Your task to perform on an android device: Turn off the flashlight Image 0: 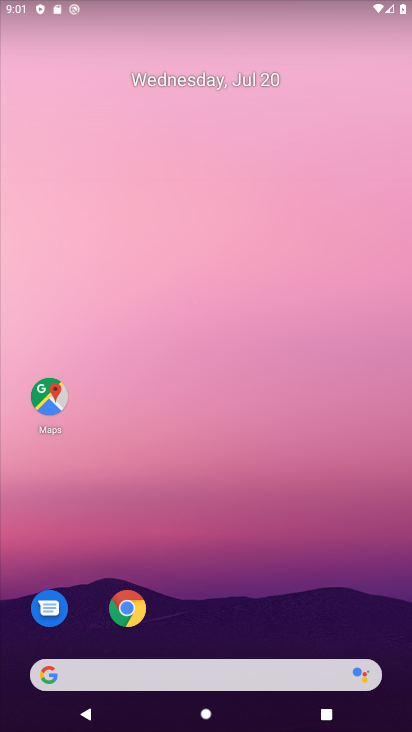
Step 0: drag from (237, 99) to (243, 532)
Your task to perform on an android device: Turn off the flashlight Image 1: 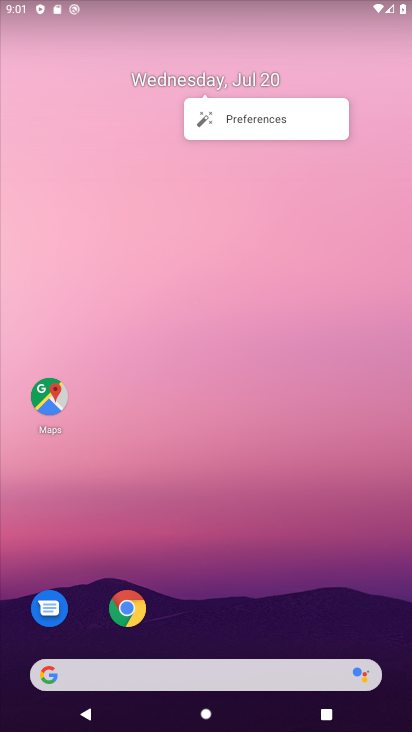
Step 1: drag from (266, 14) to (233, 473)
Your task to perform on an android device: Turn off the flashlight Image 2: 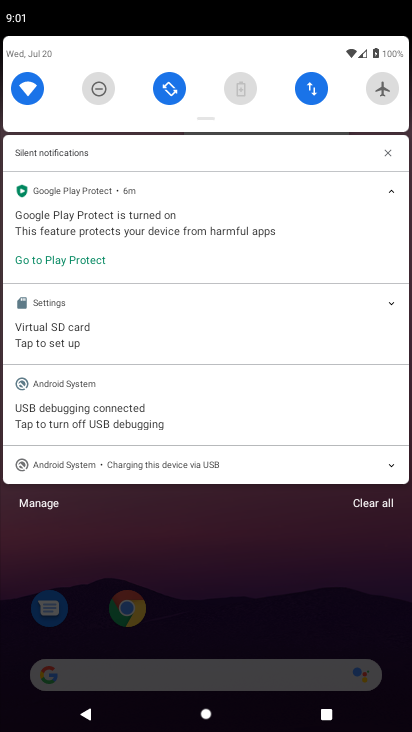
Step 2: click (233, 473)
Your task to perform on an android device: Turn off the flashlight Image 3: 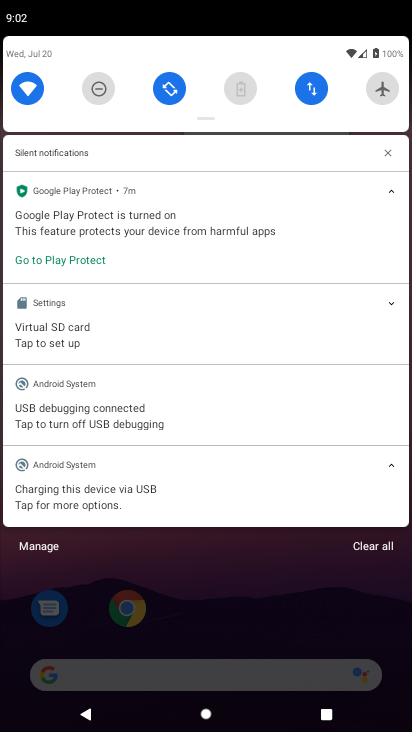
Step 3: drag from (211, 244) to (207, 302)
Your task to perform on an android device: Turn off the flashlight Image 4: 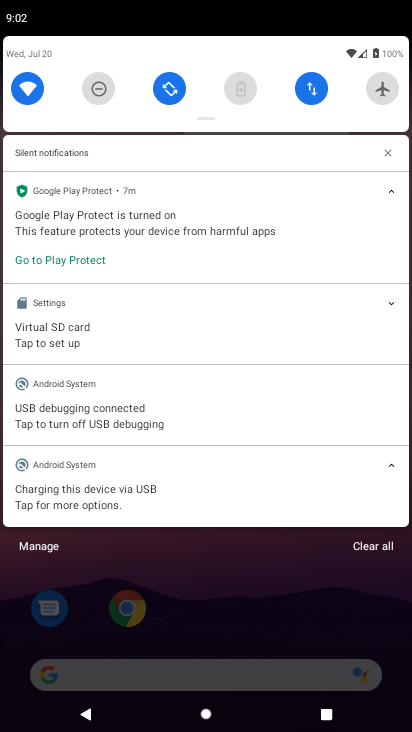
Step 4: drag from (244, 314) to (240, 433)
Your task to perform on an android device: Turn off the flashlight Image 5: 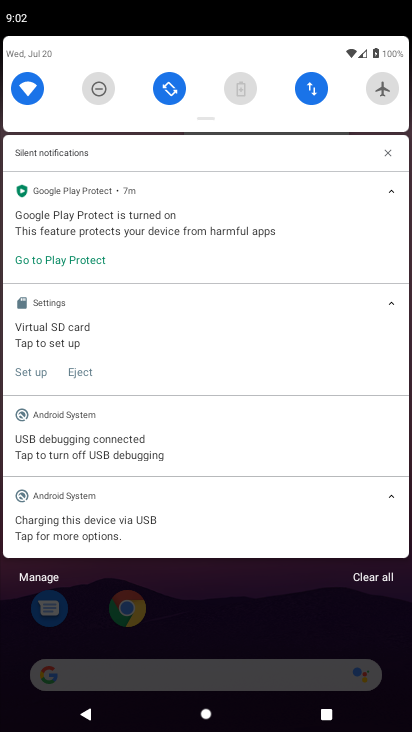
Step 5: drag from (211, 138) to (217, 465)
Your task to perform on an android device: Turn off the flashlight Image 6: 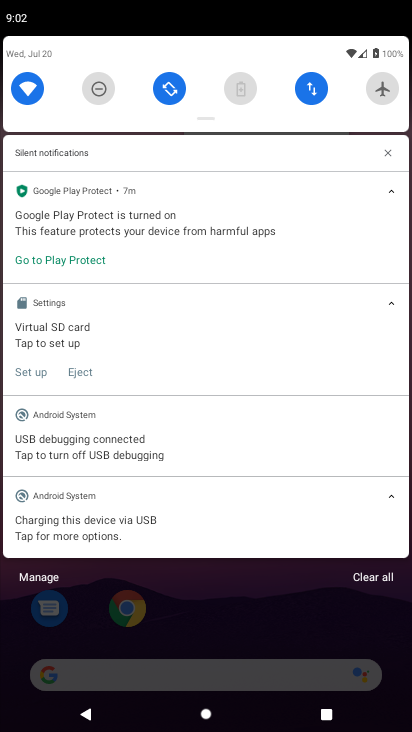
Step 6: drag from (207, 100) to (243, 470)
Your task to perform on an android device: Turn off the flashlight Image 7: 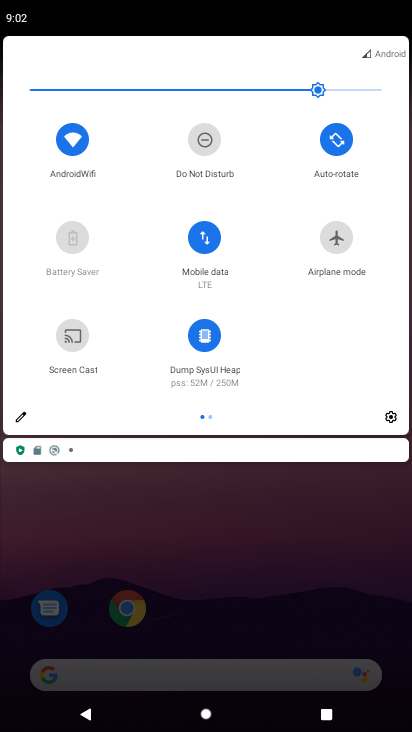
Step 7: click (22, 408)
Your task to perform on an android device: Turn off the flashlight Image 8: 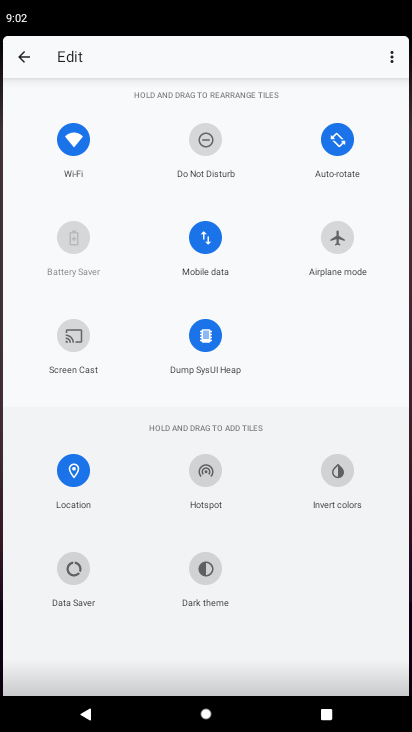
Step 8: task complete